Your task to perform on an android device: Clear the shopping cart on amazon.com. Search for "jbl flip 4" on amazon.com, select the first entry, and add it to the cart. Image 0: 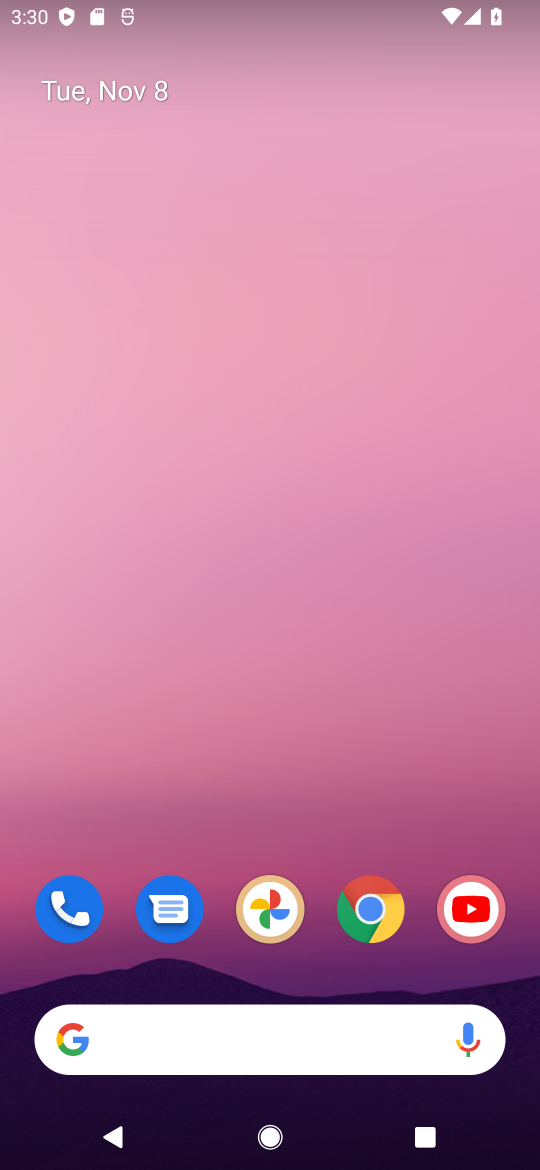
Step 0: click (370, 916)
Your task to perform on an android device: Clear the shopping cart on amazon.com. Search for "jbl flip 4" on amazon.com, select the first entry, and add it to the cart. Image 1: 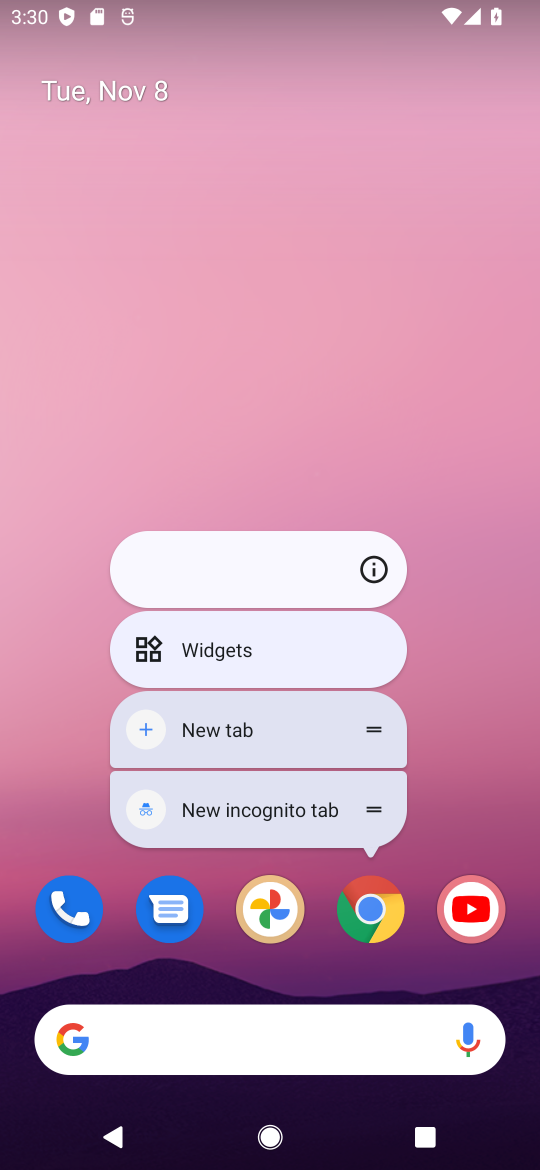
Step 1: click (368, 908)
Your task to perform on an android device: Clear the shopping cart on amazon.com. Search for "jbl flip 4" on amazon.com, select the first entry, and add it to the cart. Image 2: 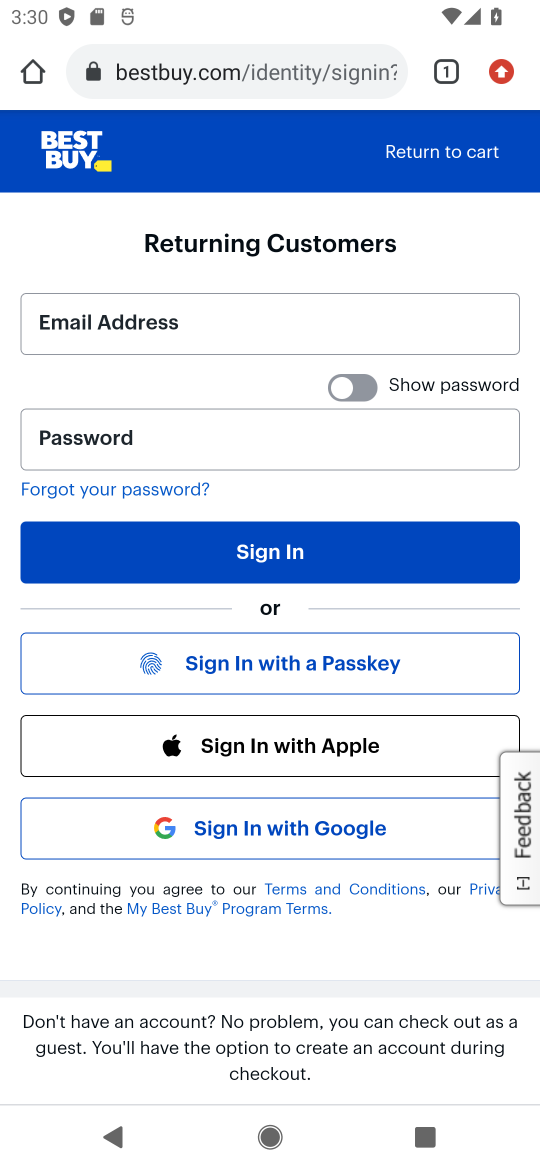
Step 2: click (230, 70)
Your task to perform on an android device: Clear the shopping cart on amazon.com. Search for "jbl flip 4" on amazon.com, select the first entry, and add it to the cart. Image 3: 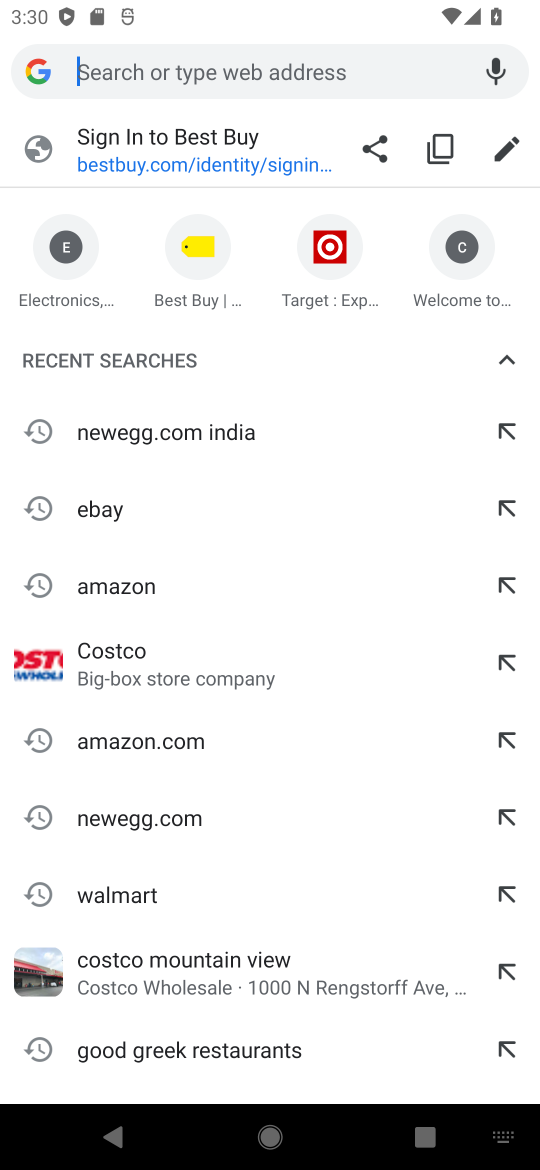
Step 3: click (97, 589)
Your task to perform on an android device: Clear the shopping cart on amazon.com. Search for "jbl flip 4" on amazon.com, select the first entry, and add it to the cart. Image 4: 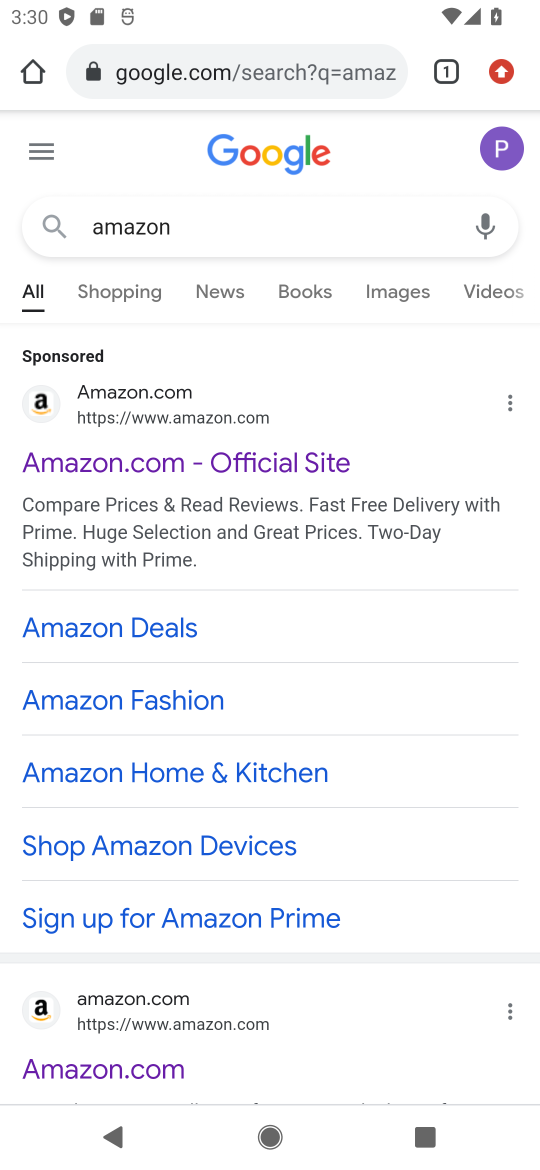
Step 4: click (133, 461)
Your task to perform on an android device: Clear the shopping cart on amazon.com. Search for "jbl flip 4" on amazon.com, select the first entry, and add it to the cart. Image 5: 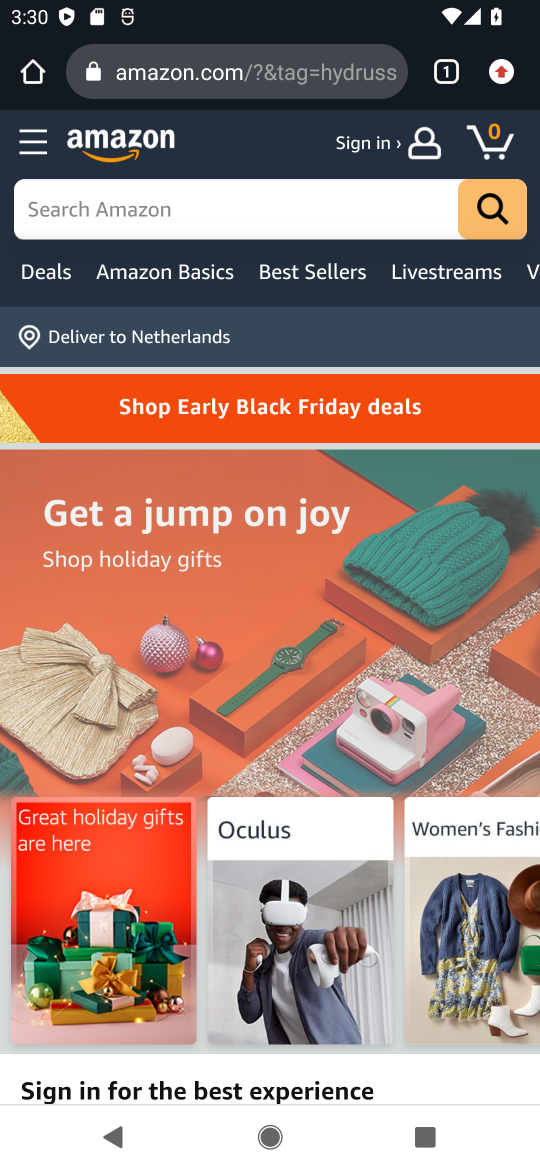
Step 5: click (182, 202)
Your task to perform on an android device: Clear the shopping cart on amazon.com. Search for "jbl flip 4" on amazon.com, select the first entry, and add it to the cart. Image 6: 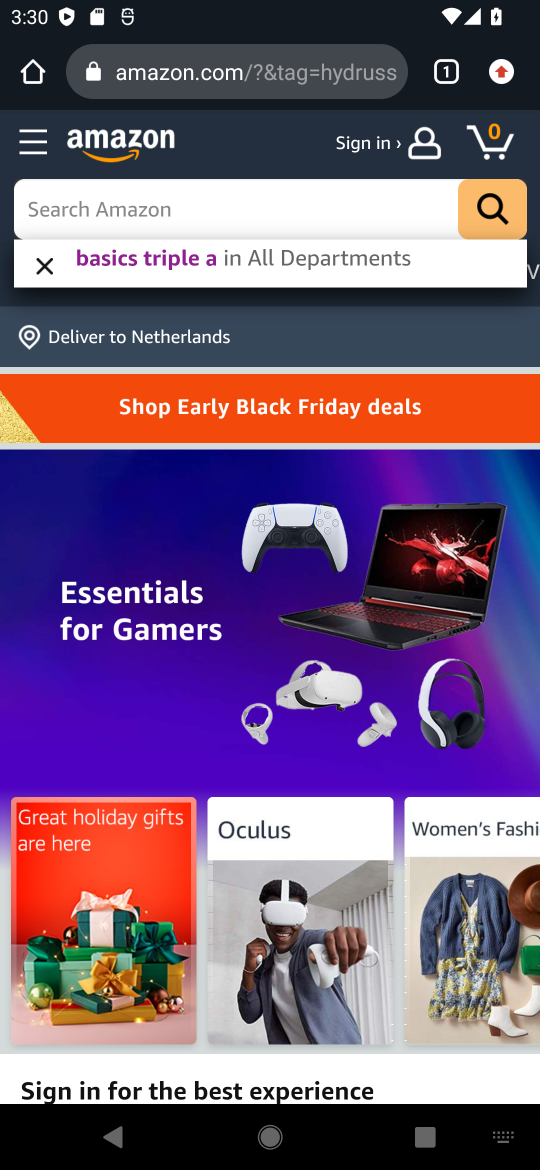
Step 6: type "jbl flip 4"
Your task to perform on an android device: Clear the shopping cart on amazon.com. Search for "jbl flip 4" on amazon.com, select the first entry, and add it to the cart. Image 7: 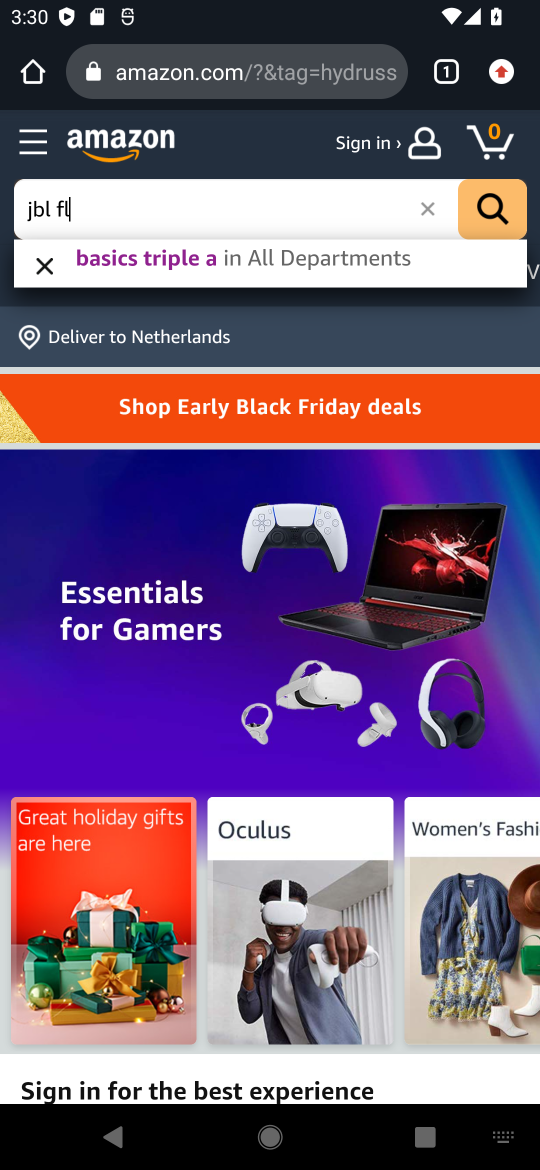
Step 7: press enter
Your task to perform on an android device: Clear the shopping cart on amazon.com. Search for "jbl flip 4" on amazon.com, select the first entry, and add it to the cart. Image 8: 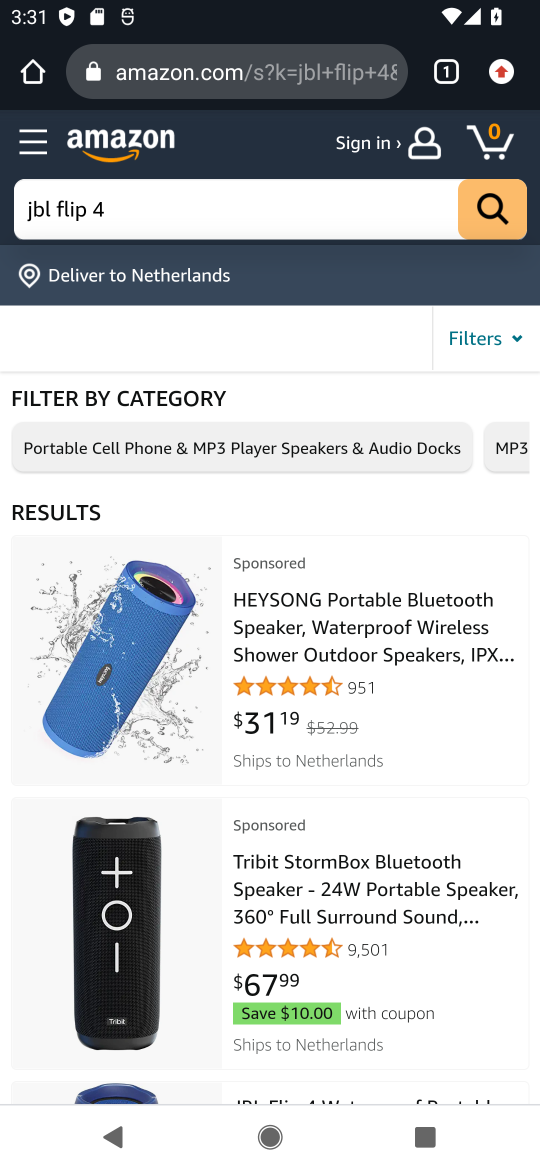
Step 8: click (354, 629)
Your task to perform on an android device: Clear the shopping cart on amazon.com. Search for "jbl flip 4" on amazon.com, select the first entry, and add it to the cart. Image 9: 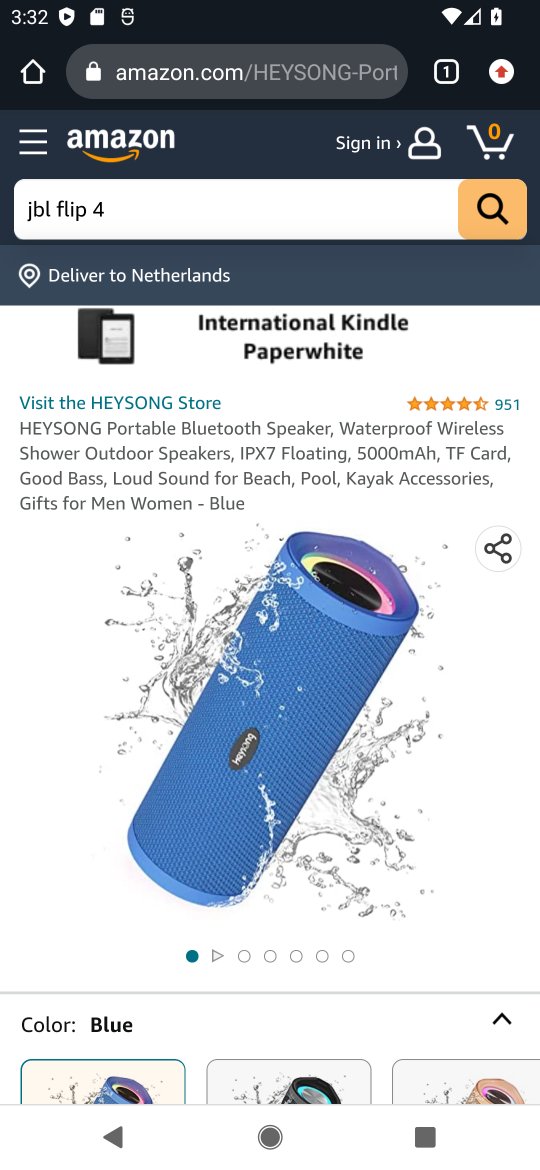
Step 9: task complete